Your task to perform on an android device: What's on my calendar today? Image 0: 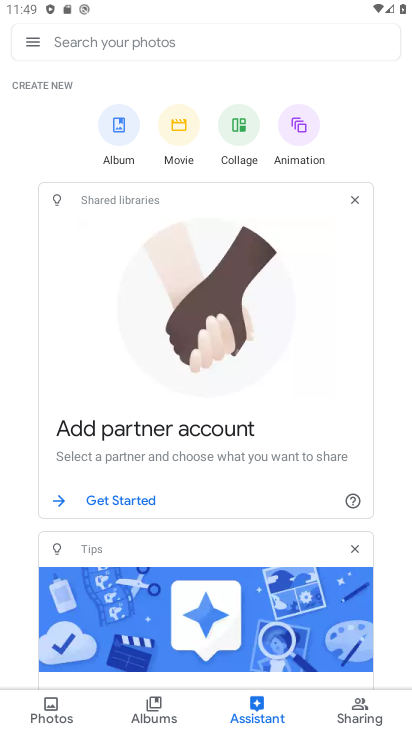
Step 0: press home button
Your task to perform on an android device: What's on my calendar today? Image 1: 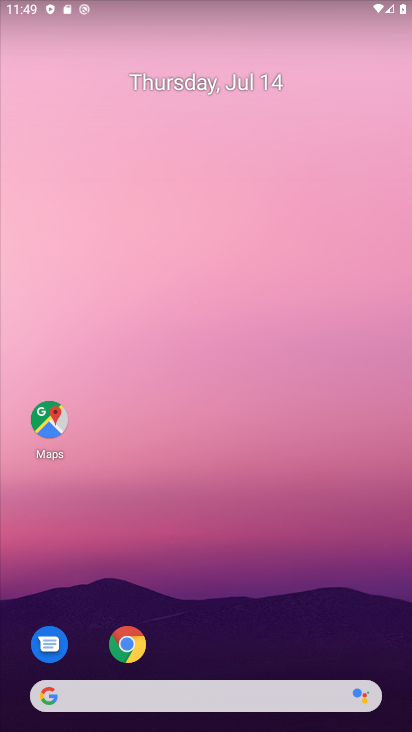
Step 1: drag from (201, 673) to (133, 157)
Your task to perform on an android device: What's on my calendar today? Image 2: 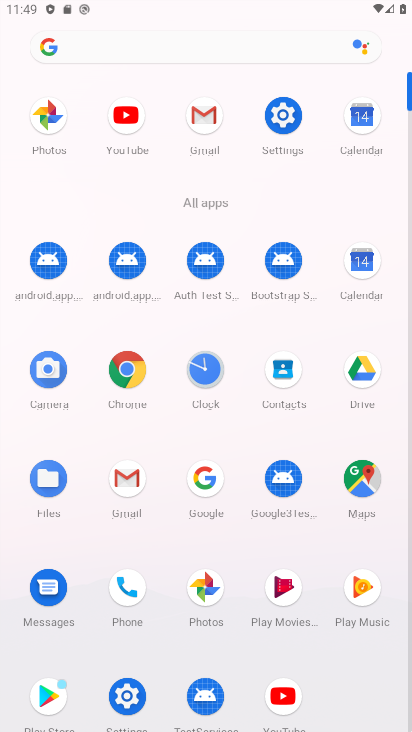
Step 2: click (365, 267)
Your task to perform on an android device: What's on my calendar today? Image 3: 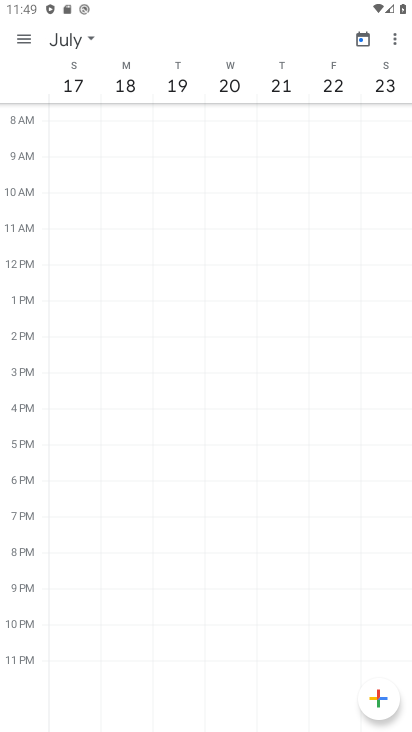
Step 3: click (369, 42)
Your task to perform on an android device: What's on my calendar today? Image 4: 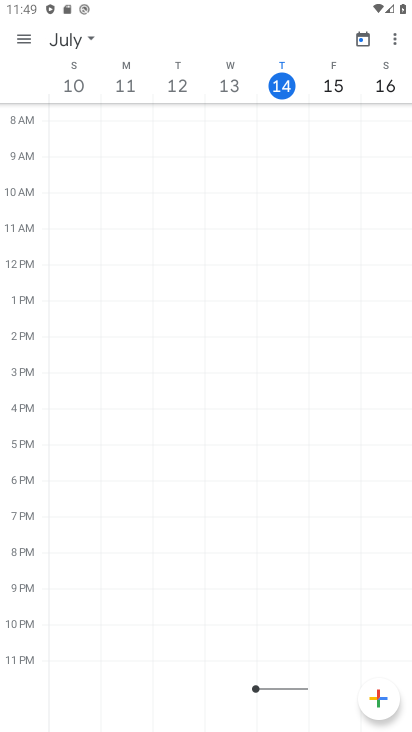
Step 4: click (284, 78)
Your task to perform on an android device: What's on my calendar today? Image 5: 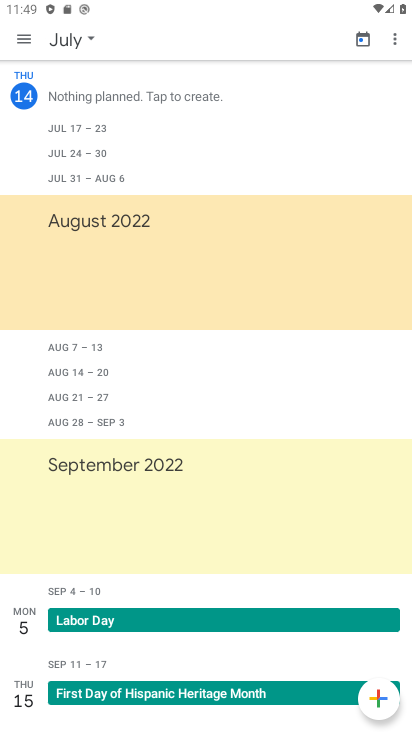
Step 5: task complete